Your task to perform on an android device: uninstall "WhatsApp Messenger" Image 0: 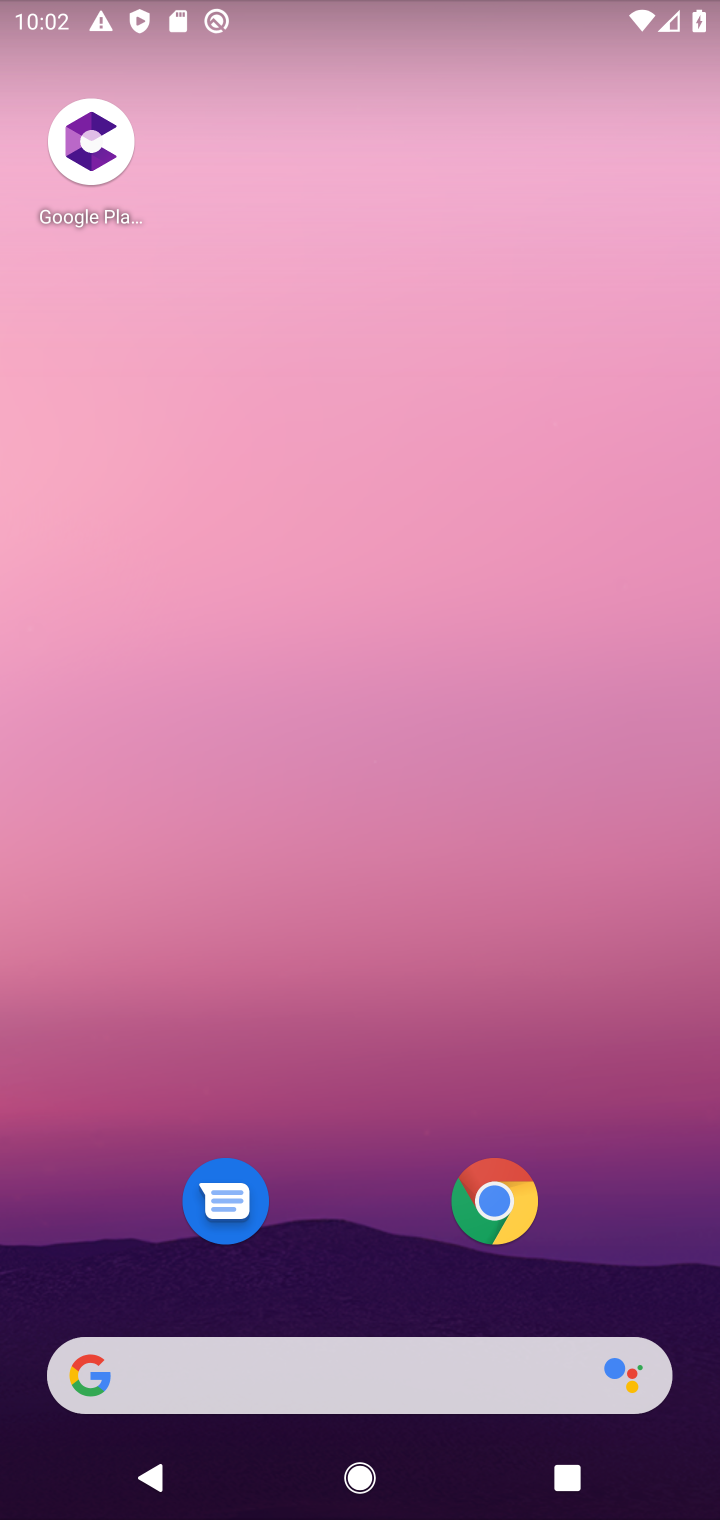
Step 0: drag from (301, 1360) to (544, 239)
Your task to perform on an android device: uninstall "WhatsApp Messenger" Image 1: 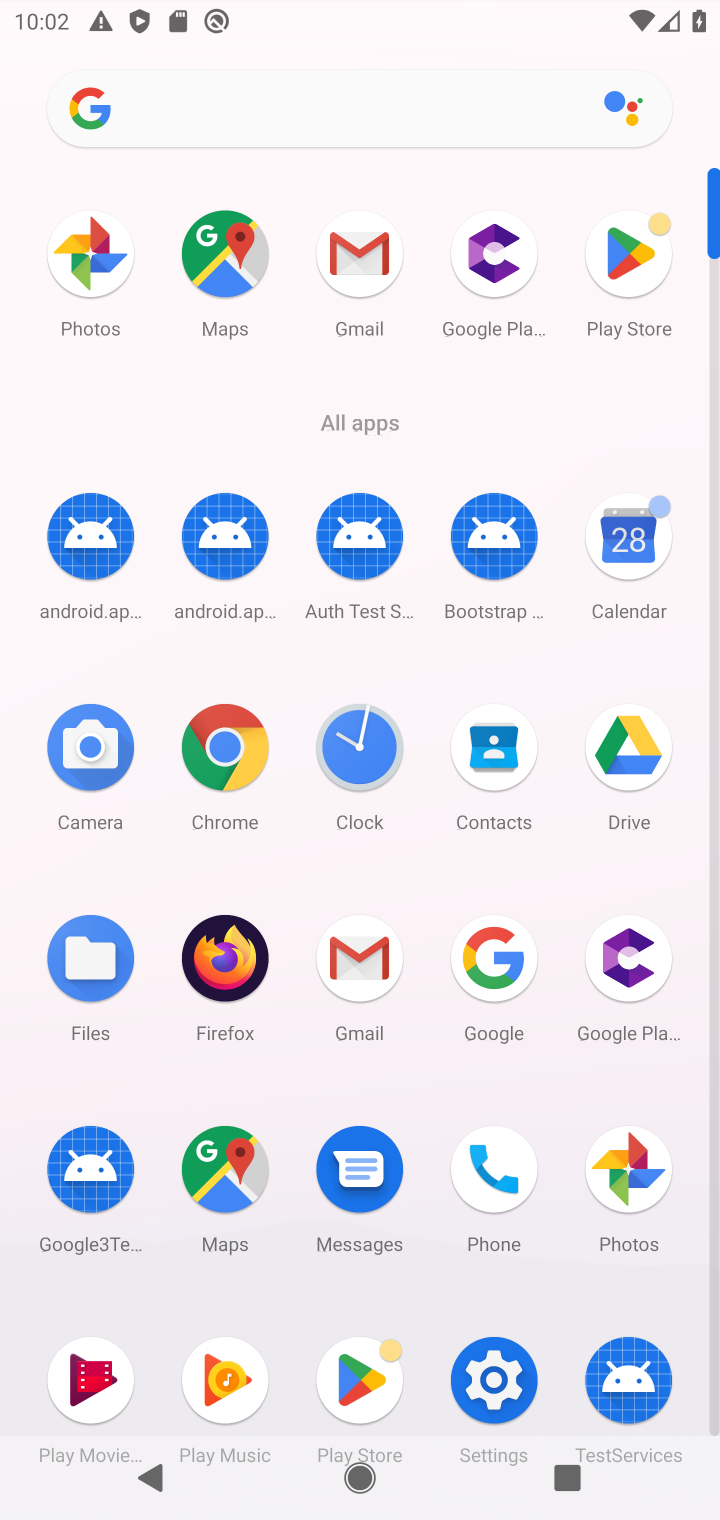
Step 1: click (630, 317)
Your task to perform on an android device: uninstall "WhatsApp Messenger" Image 2: 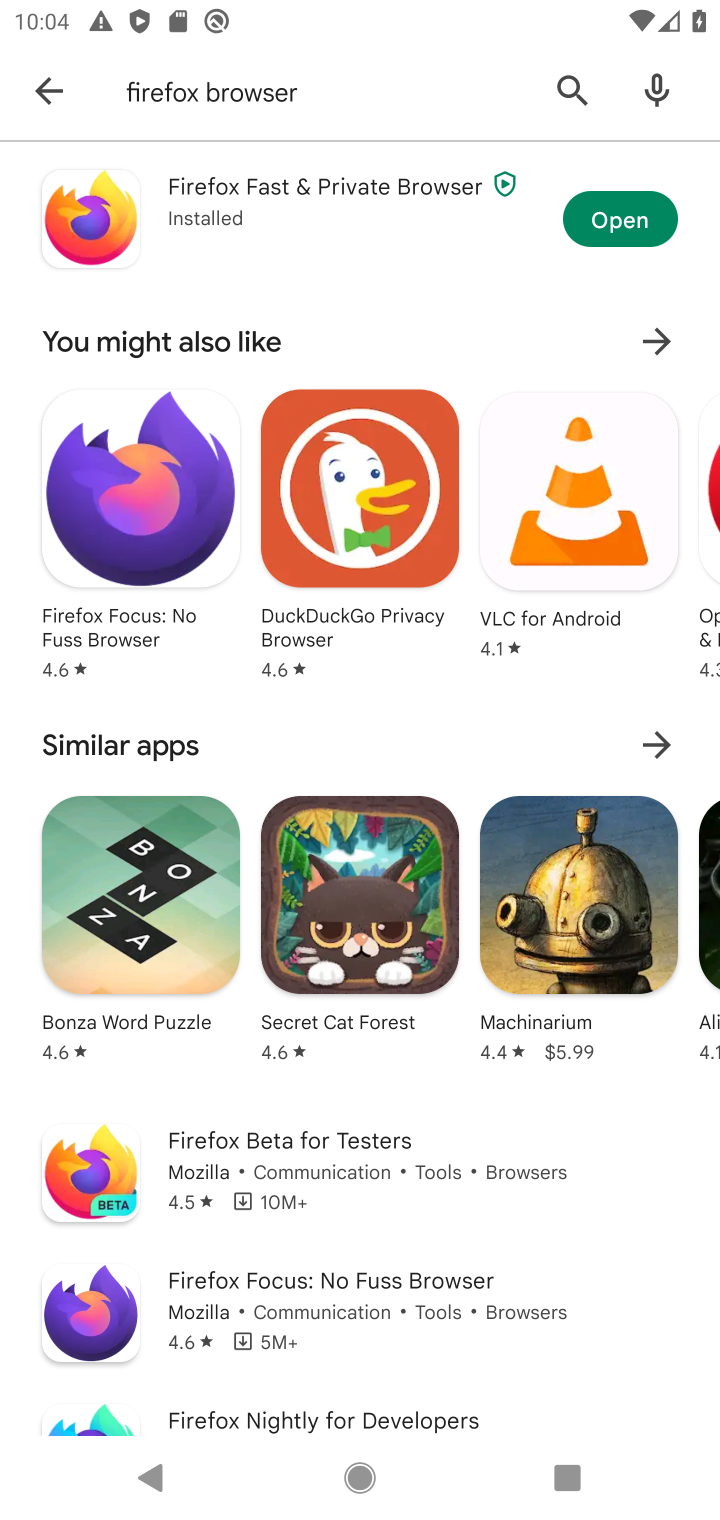
Step 2: click (59, 79)
Your task to perform on an android device: uninstall "WhatsApp Messenger" Image 3: 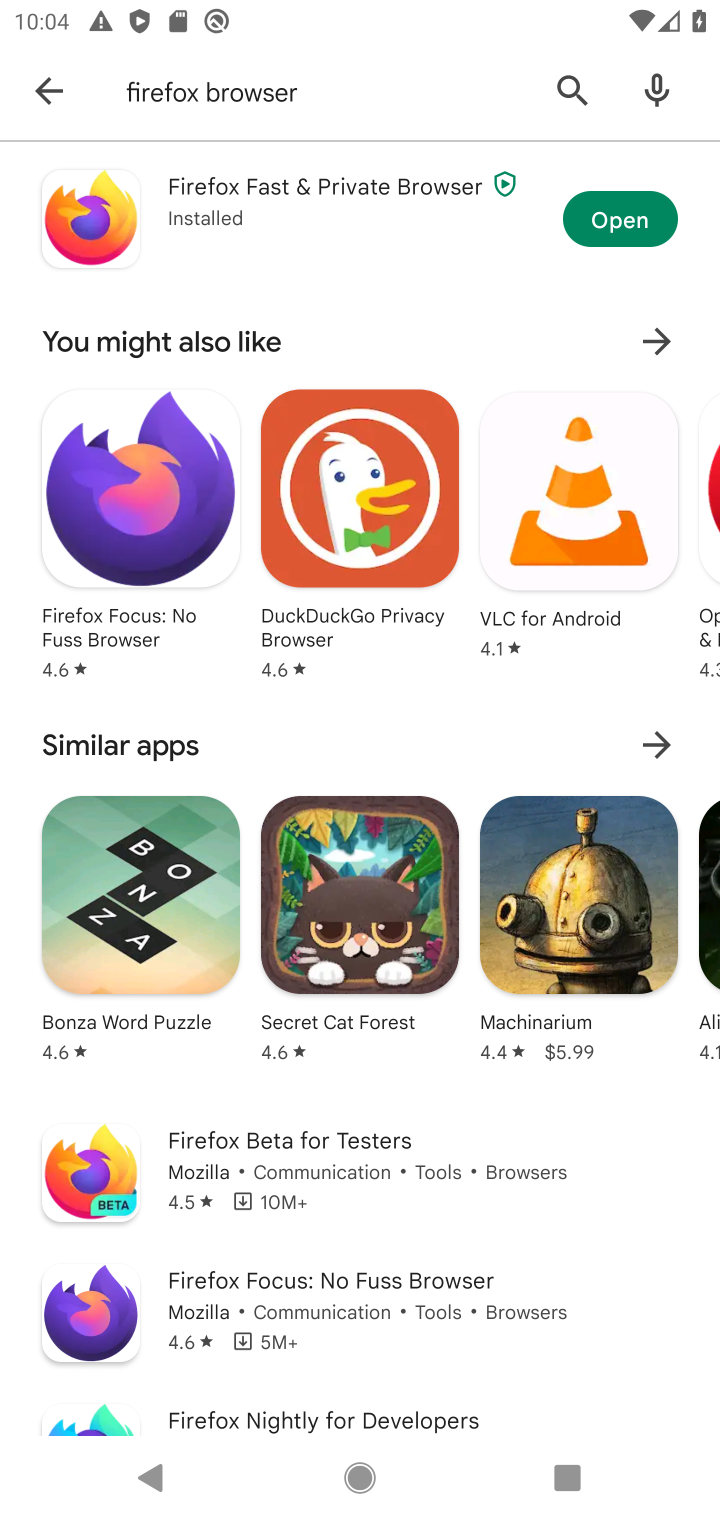
Step 3: click (43, 106)
Your task to perform on an android device: uninstall "WhatsApp Messenger" Image 4: 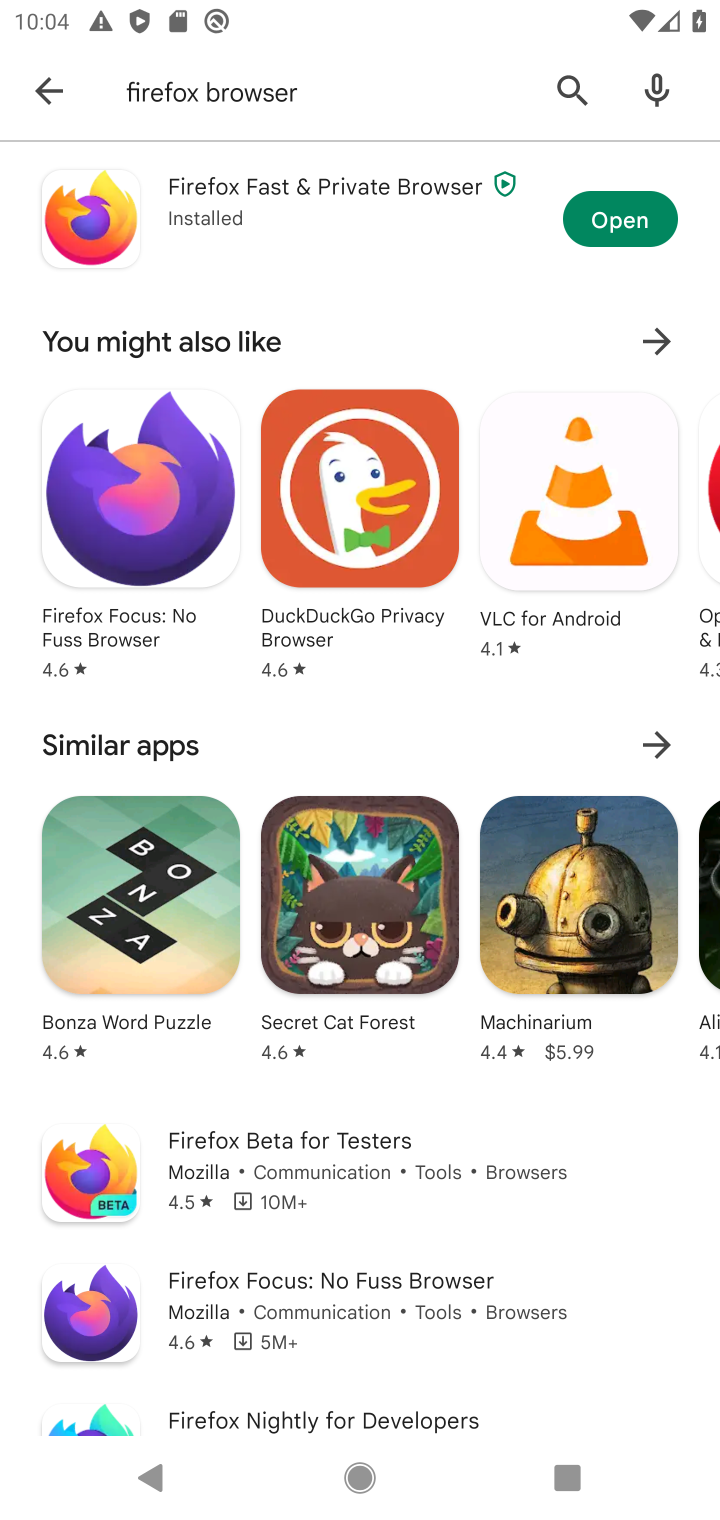
Step 4: click (42, 94)
Your task to perform on an android device: uninstall "WhatsApp Messenger" Image 5: 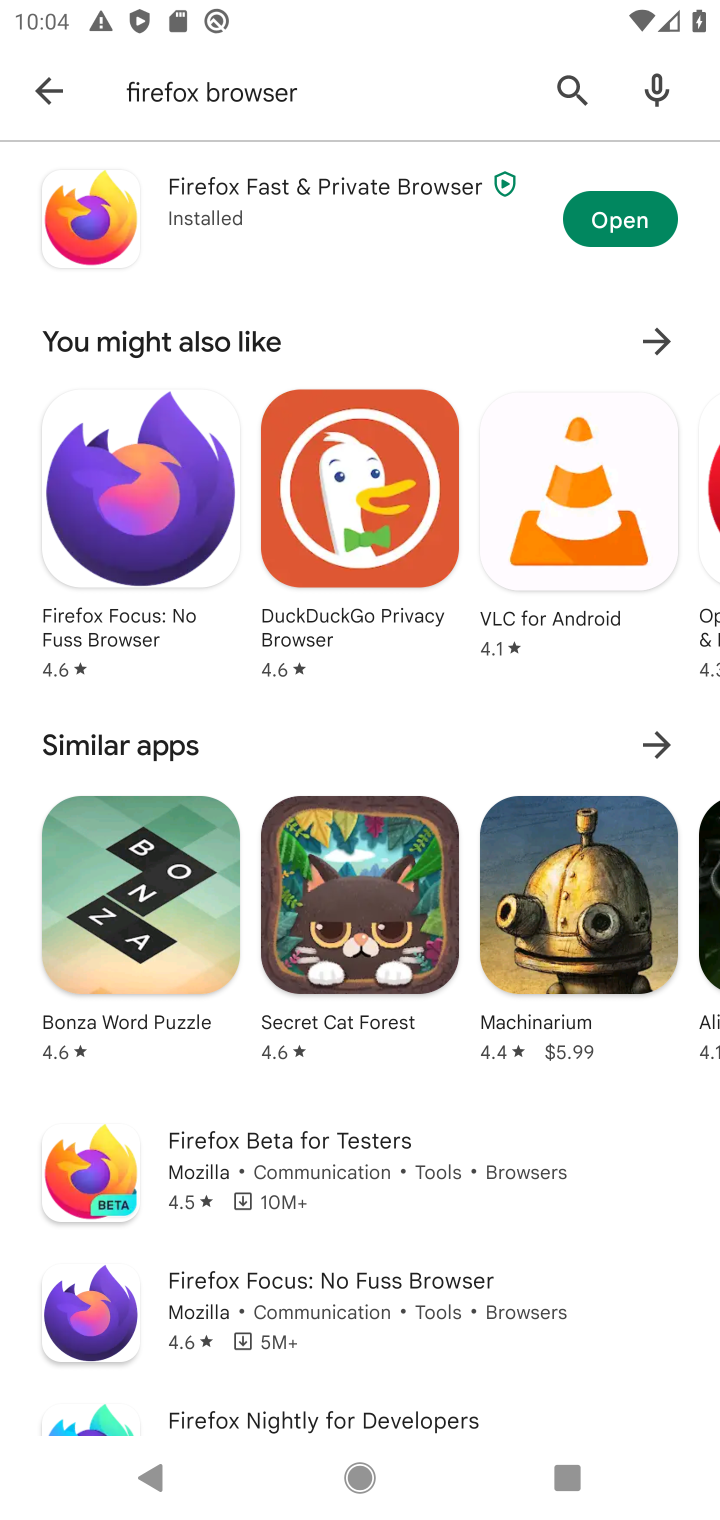
Step 5: click (48, 89)
Your task to perform on an android device: uninstall "WhatsApp Messenger" Image 6: 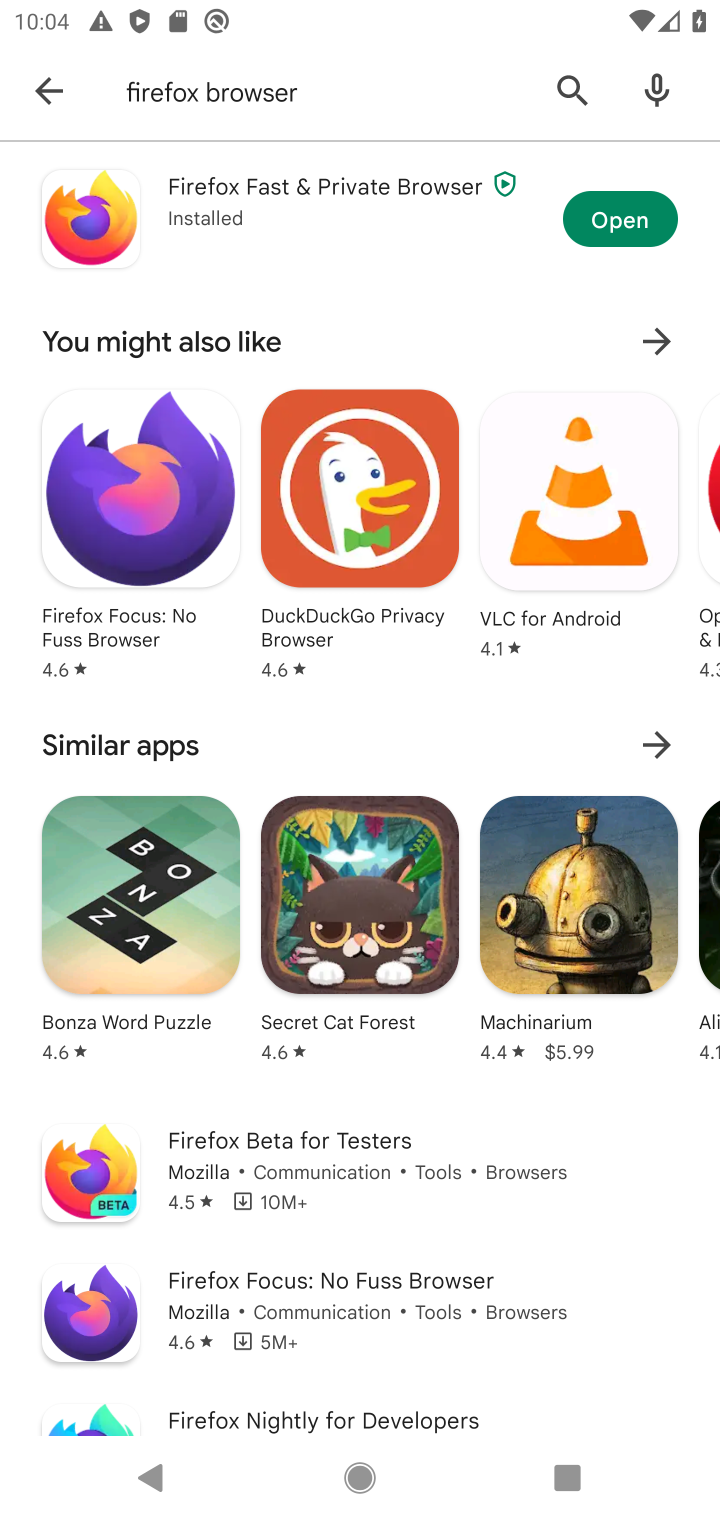
Step 6: click (51, 102)
Your task to perform on an android device: uninstall "WhatsApp Messenger" Image 7: 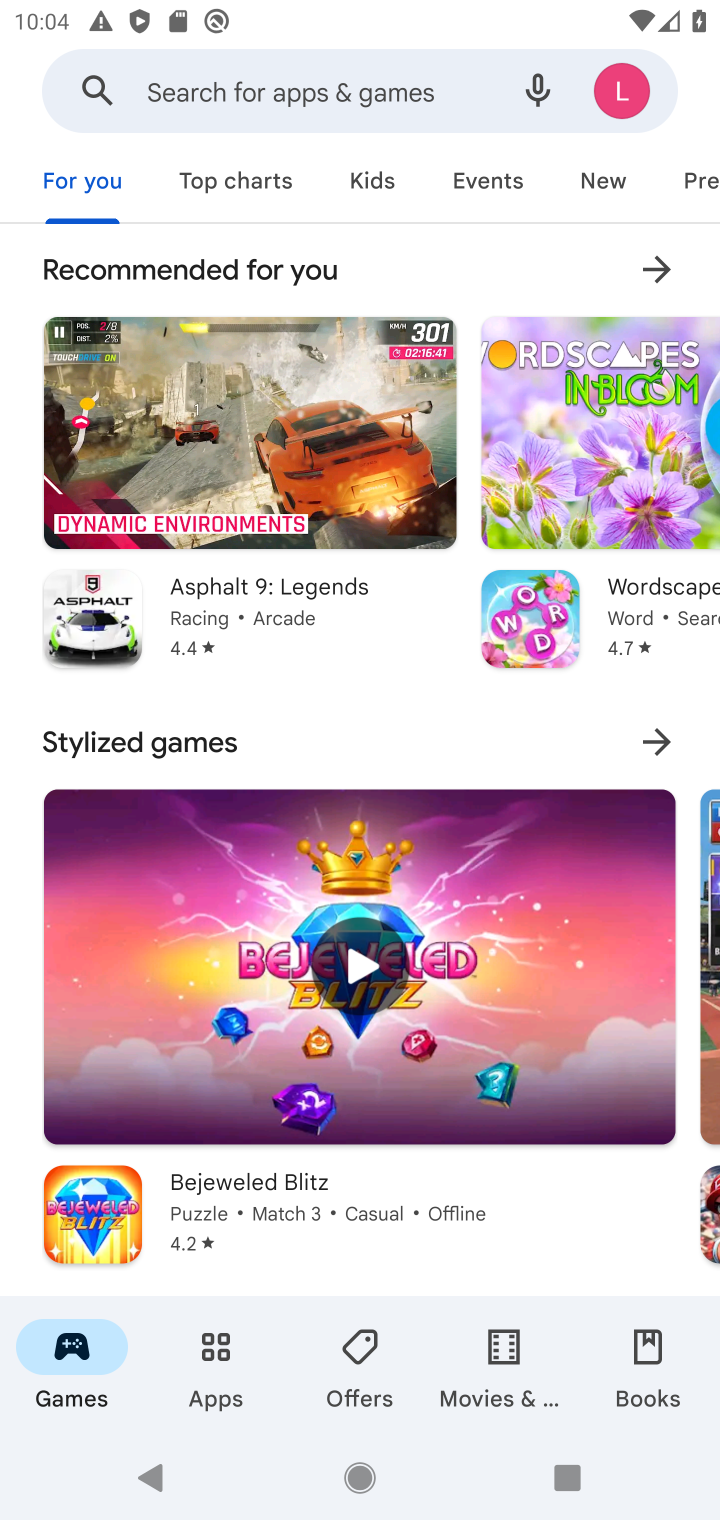
Step 7: click (310, 92)
Your task to perform on an android device: uninstall "WhatsApp Messenger" Image 8: 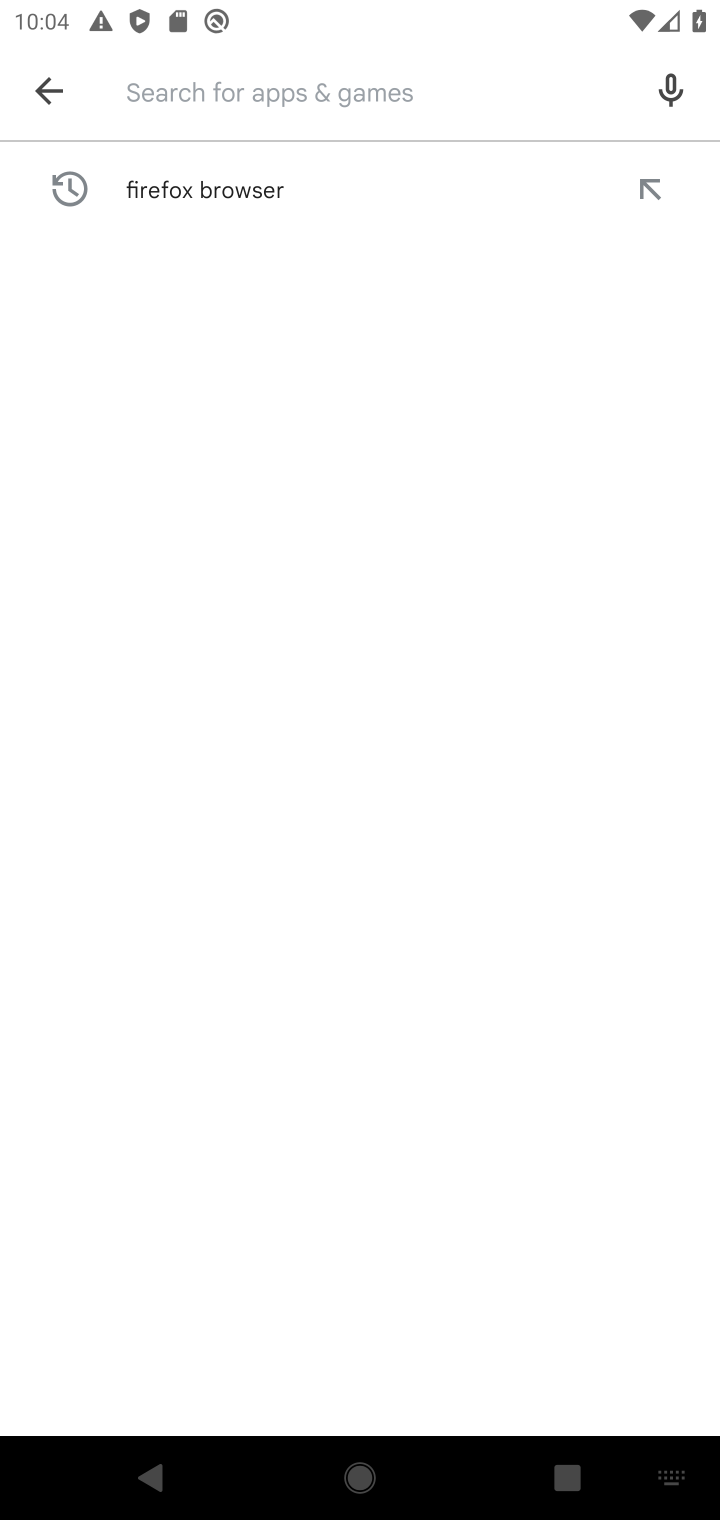
Step 8: type "WhatsApp Messenger""
Your task to perform on an android device: uninstall "WhatsApp Messenger" Image 9: 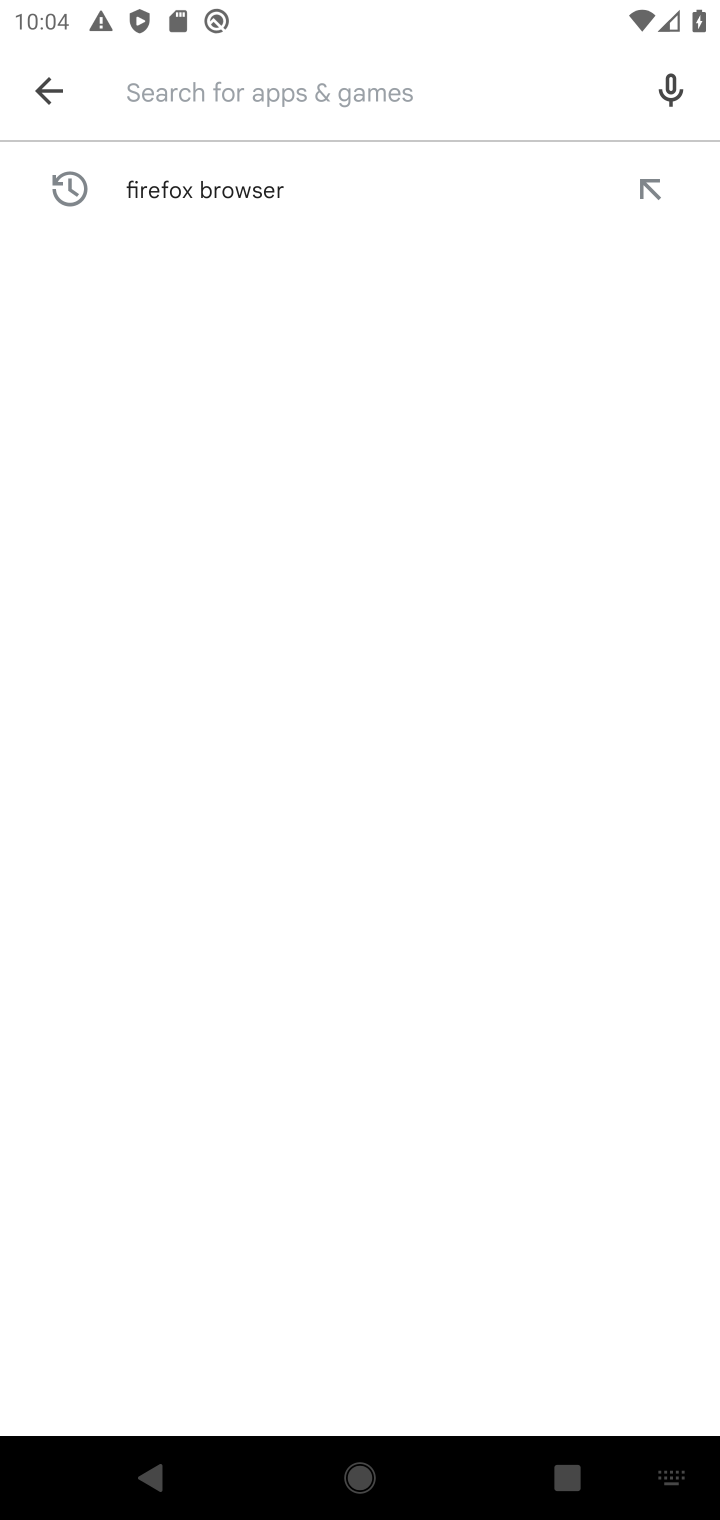
Step 9: type ""
Your task to perform on an android device: uninstall "WhatsApp Messenger" Image 10: 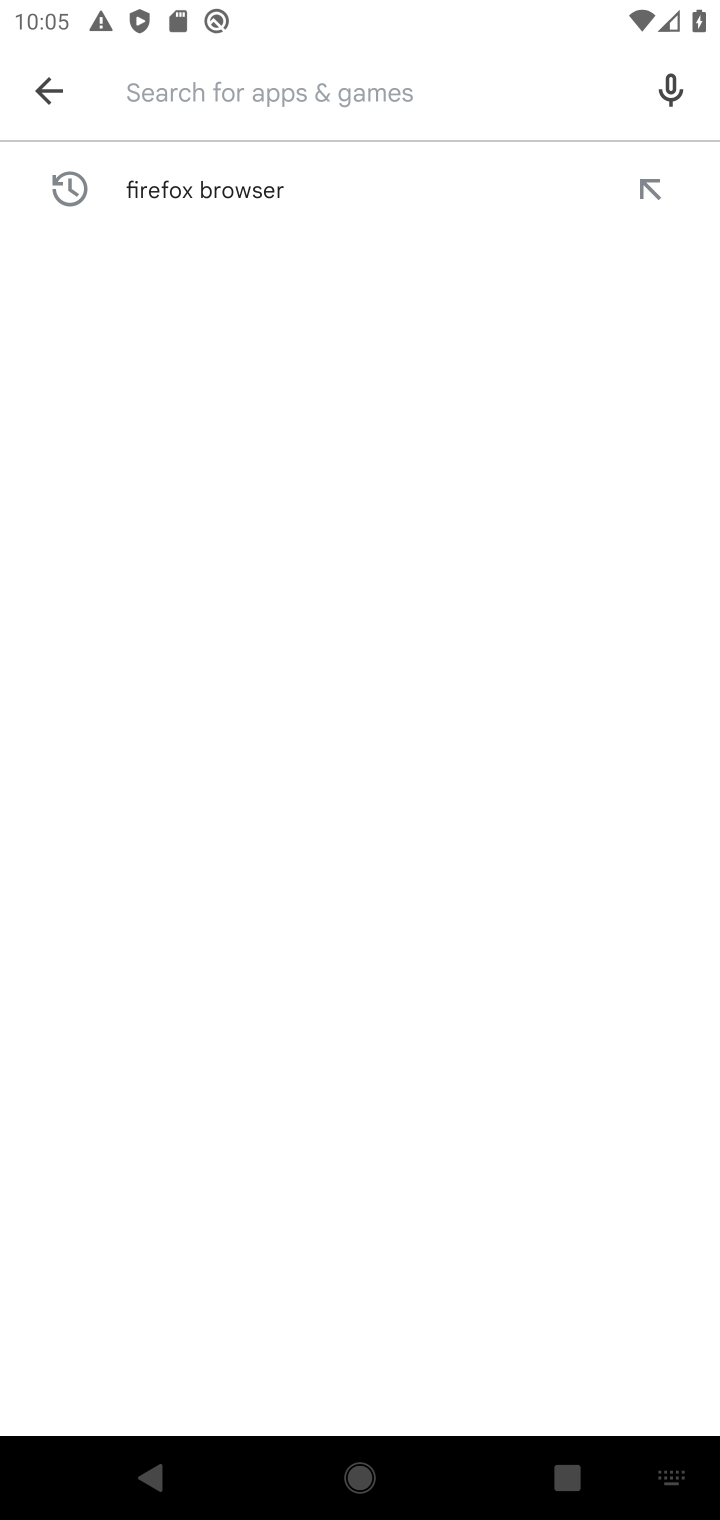
Step 10: type "WhatsApp Messenger"
Your task to perform on an android device: uninstall "WhatsApp Messenger" Image 11: 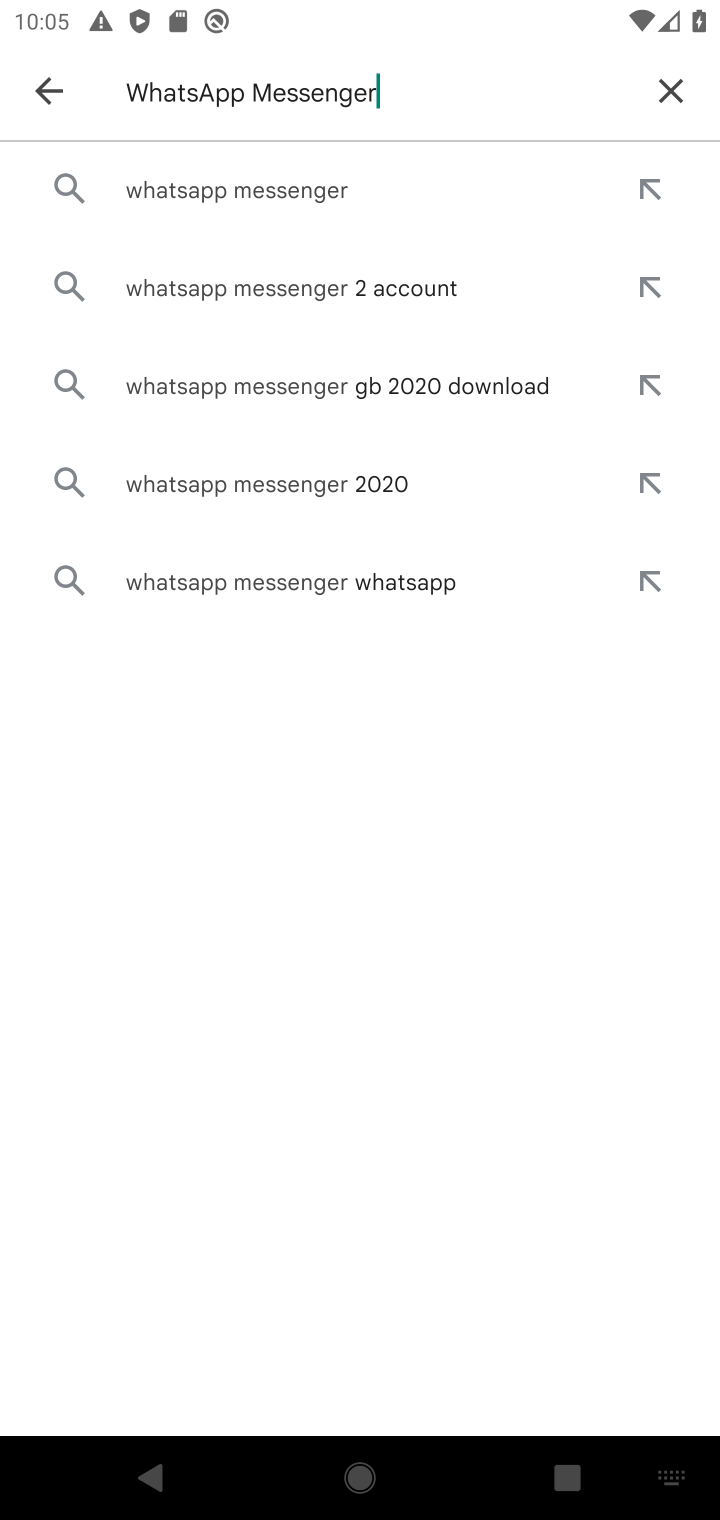
Step 11: click (207, 207)
Your task to perform on an android device: uninstall "WhatsApp Messenger" Image 12: 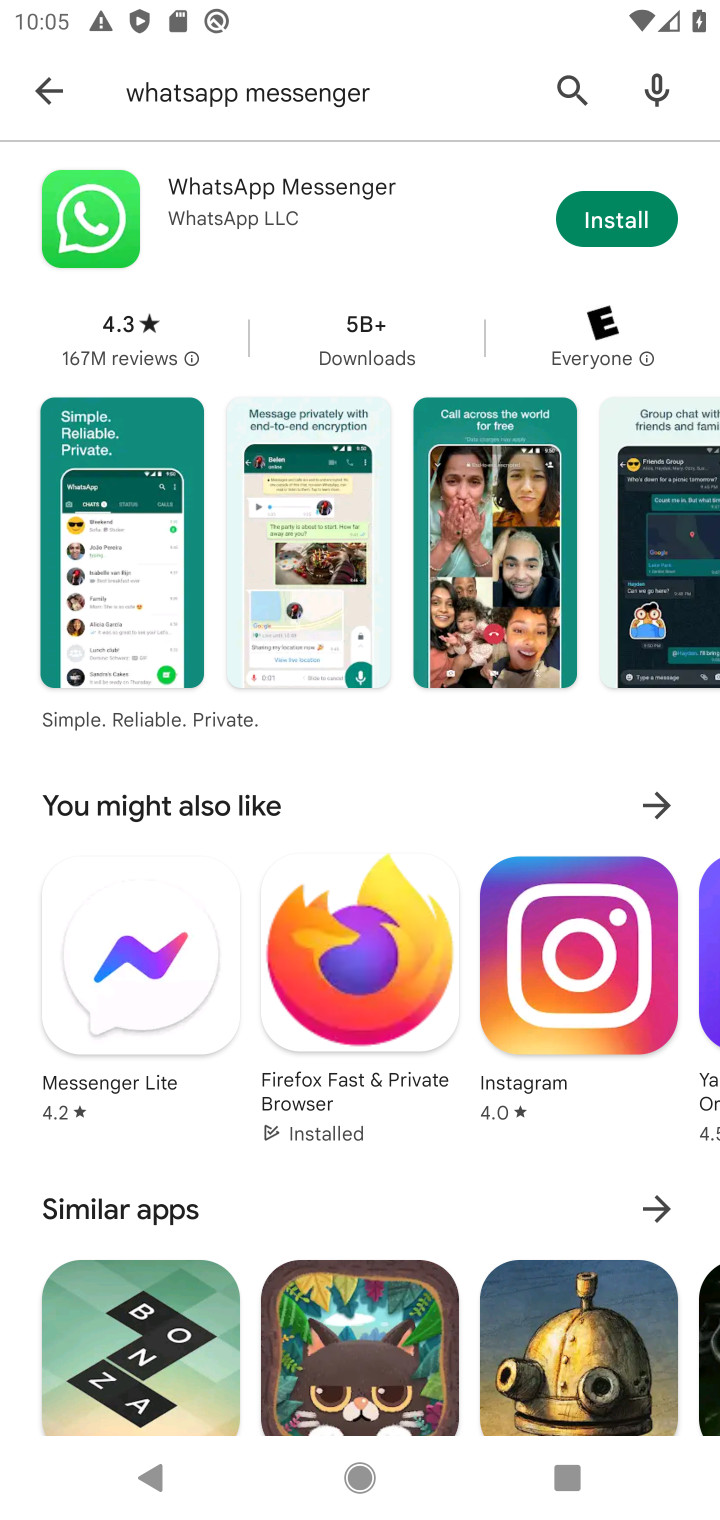
Step 12: task complete